Your task to perform on an android device: check battery use Image 0: 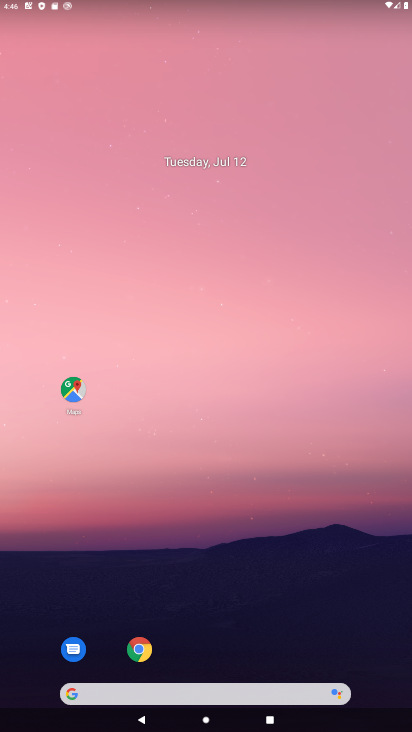
Step 0: drag from (218, 698) to (270, 83)
Your task to perform on an android device: check battery use Image 1: 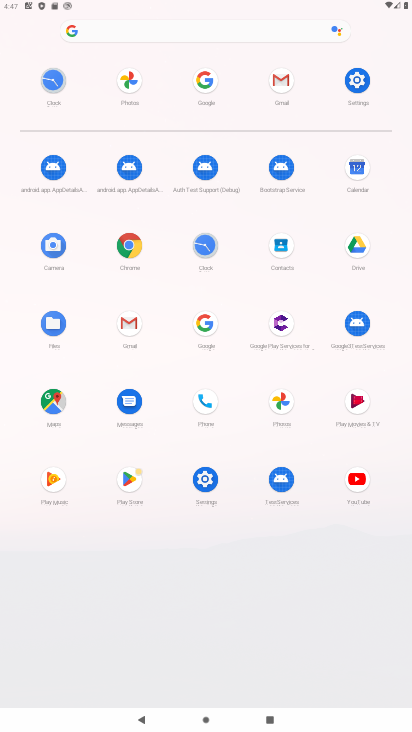
Step 1: click (358, 81)
Your task to perform on an android device: check battery use Image 2: 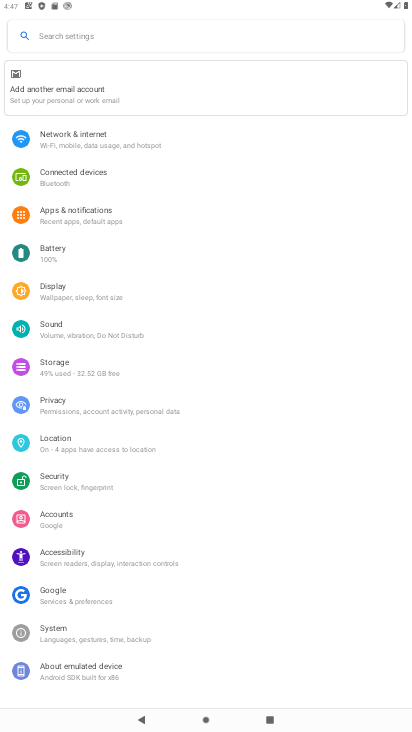
Step 2: click (49, 254)
Your task to perform on an android device: check battery use Image 3: 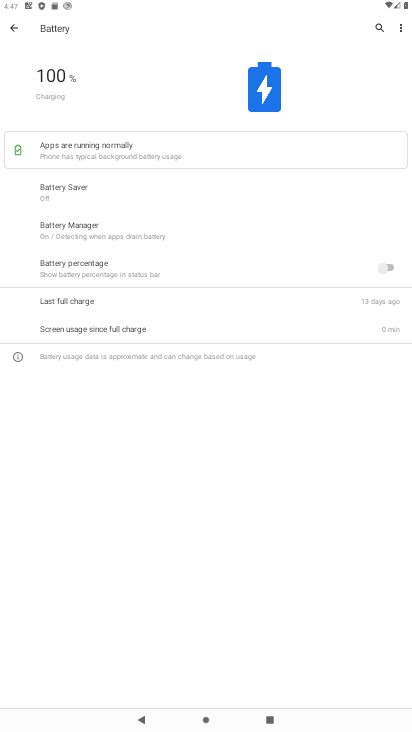
Step 3: click (401, 29)
Your task to perform on an android device: check battery use Image 4: 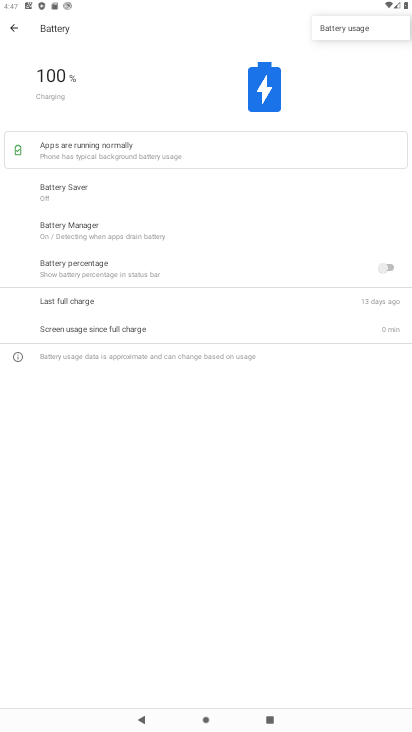
Step 4: click (353, 28)
Your task to perform on an android device: check battery use Image 5: 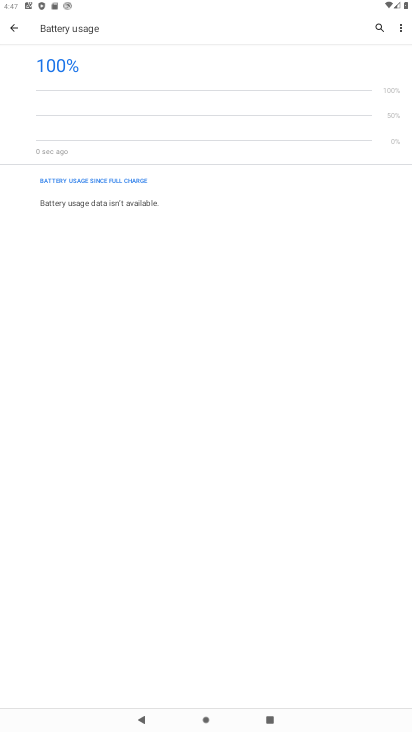
Step 5: task complete